Your task to perform on an android device: Open Amazon Image 0: 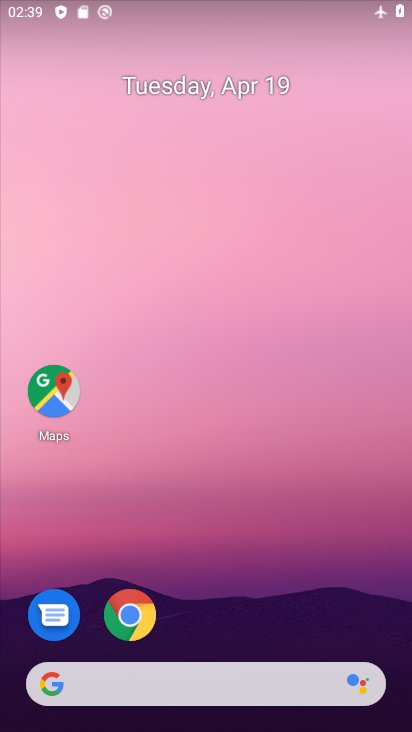
Step 0: drag from (262, 293) to (266, 234)
Your task to perform on an android device: Open Amazon Image 1: 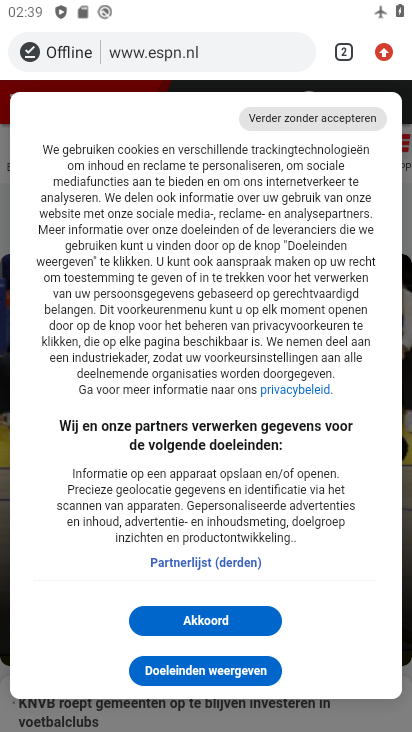
Step 1: press home button
Your task to perform on an android device: Open Amazon Image 2: 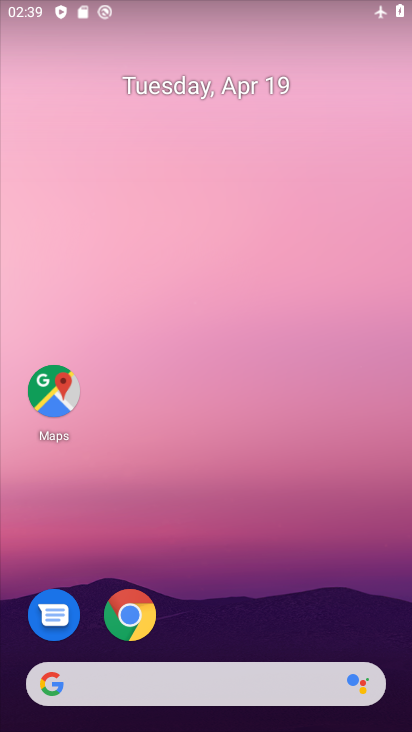
Step 2: drag from (263, 371) to (278, 210)
Your task to perform on an android device: Open Amazon Image 3: 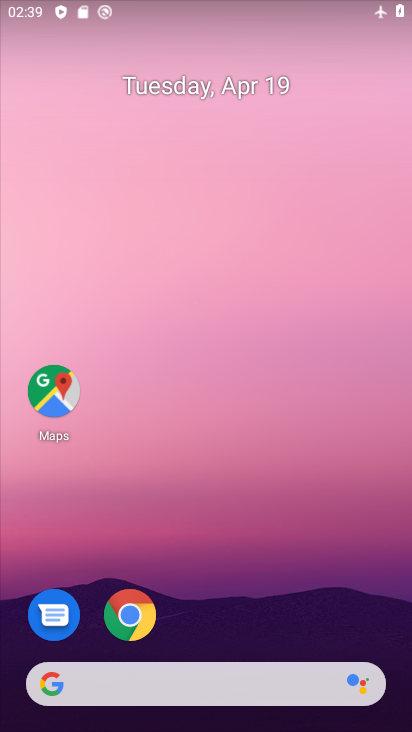
Step 3: drag from (243, 697) to (265, 306)
Your task to perform on an android device: Open Amazon Image 4: 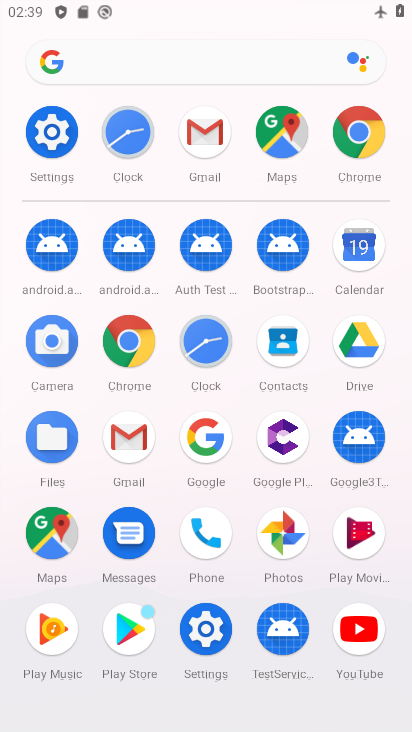
Step 4: click (114, 329)
Your task to perform on an android device: Open Amazon Image 5: 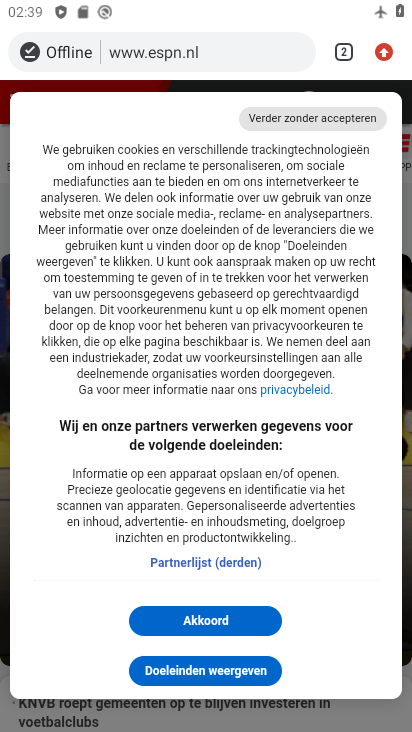
Step 5: click (392, 54)
Your task to perform on an android device: Open Amazon Image 6: 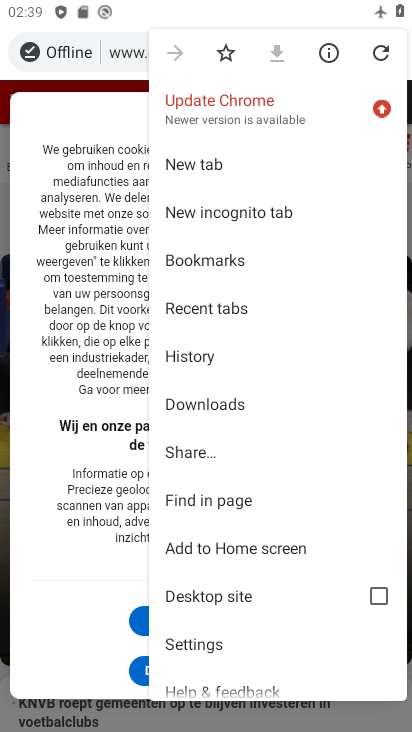
Step 6: click (225, 158)
Your task to perform on an android device: Open Amazon Image 7: 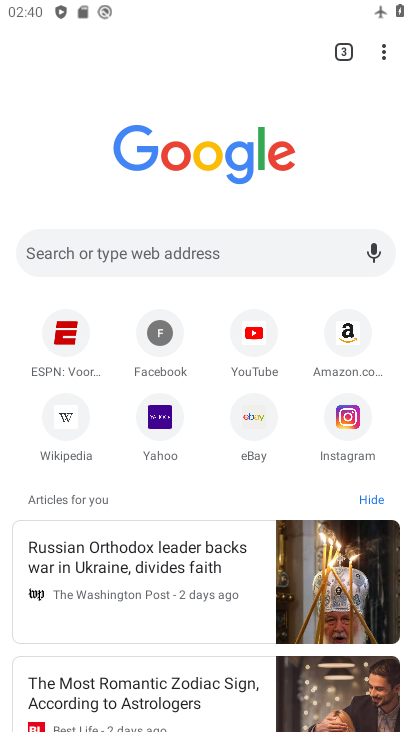
Step 7: click (340, 327)
Your task to perform on an android device: Open Amazon Image 8: 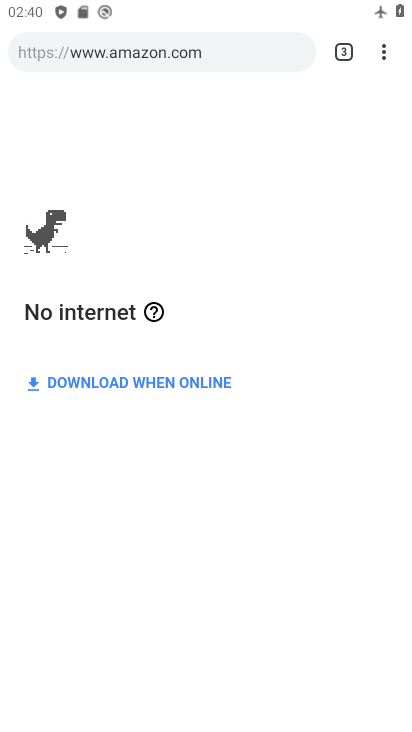
Step 8: task complete